Your task to perform on an android device: Open my contact list Image 0: 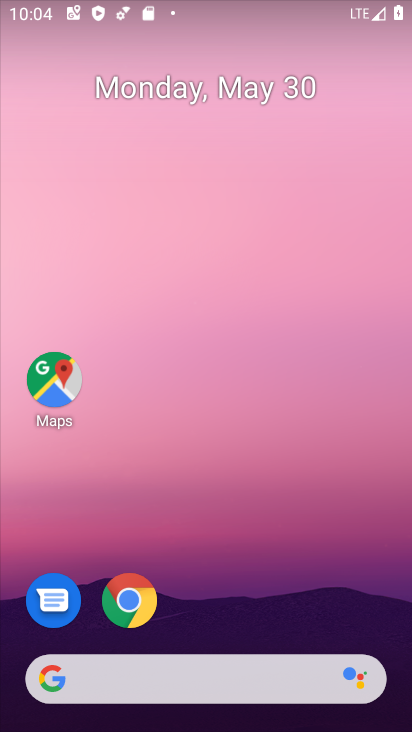
Step 0: drag from (344, 596) to (240, 5)
Your task to perform on an android device: Open my contact list Image 1: 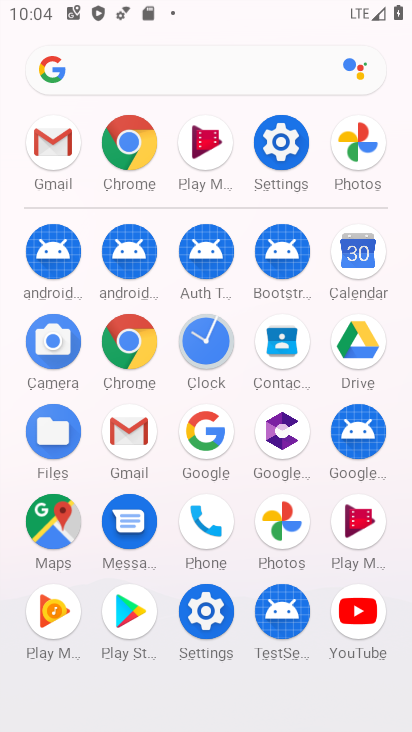
Step 1: click (281, 352)
Your task to perform on an android device: Open my contact list Image 2: 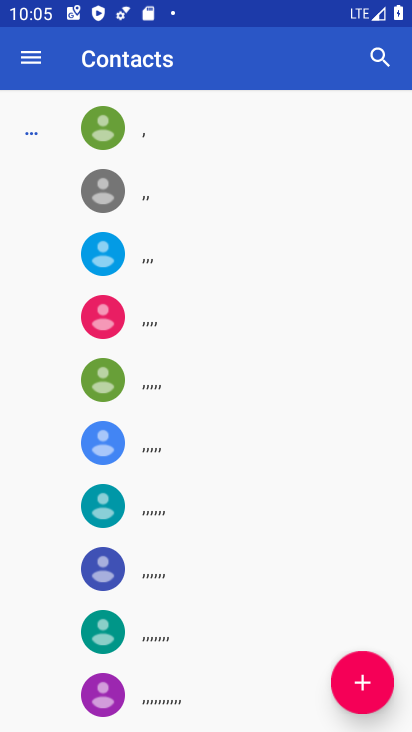
Step 2: task complete